Your task to perform on an android device: Add razer thresher to the cart on bestbuy, then select checkout. Image 0: 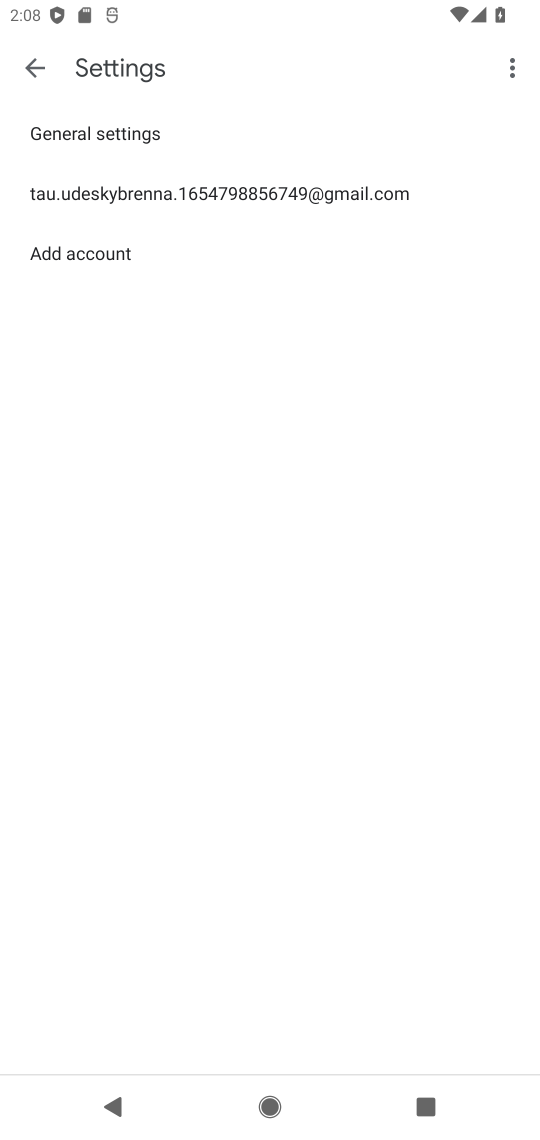
Step 0: press home button
Your task to perform on an android device: Add razer thresher to the cart on bestbuy, then select checkout. Image 1: 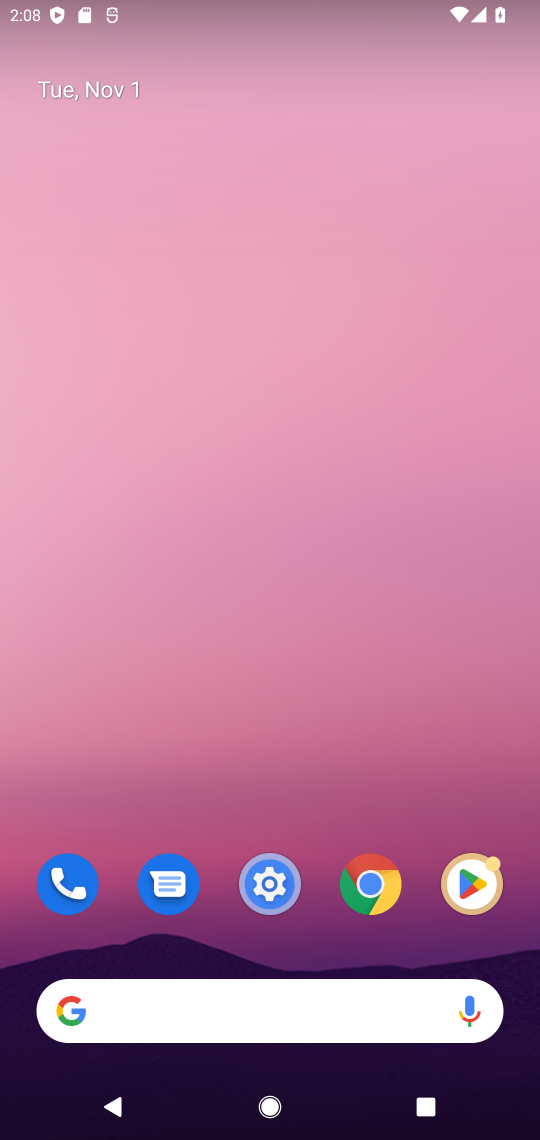
Step 1: click (100, 1001)
Your task to perform on an android device: Add razer thresher to the cart on bestbuy, then select checkout. Image 2: 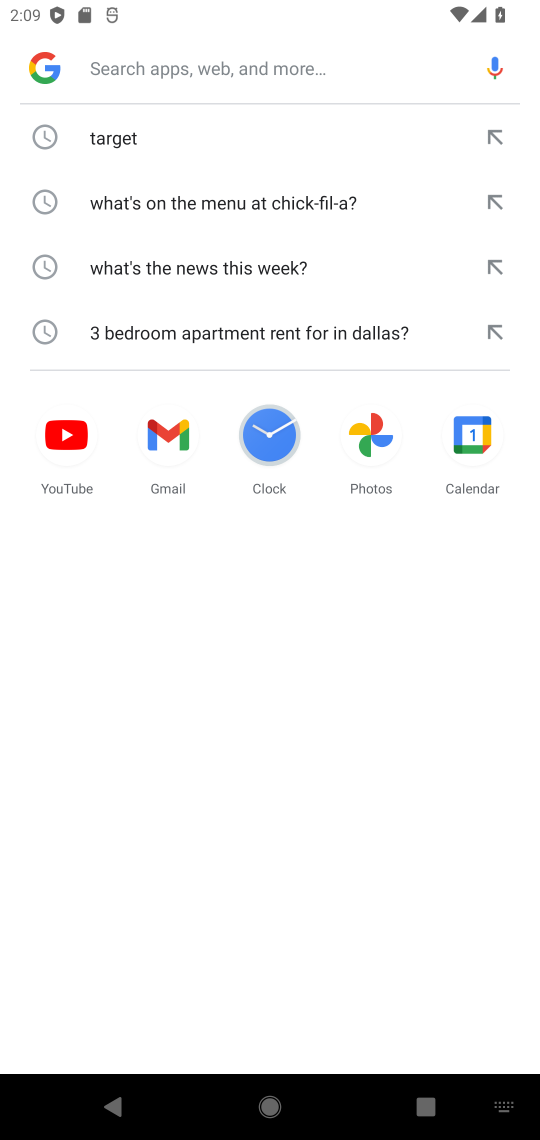
Step 2: type "bestbuy,"
Your task to perform on an android device: Add razer thresher to the cart on bestbuy, then select checkout. Image 3: 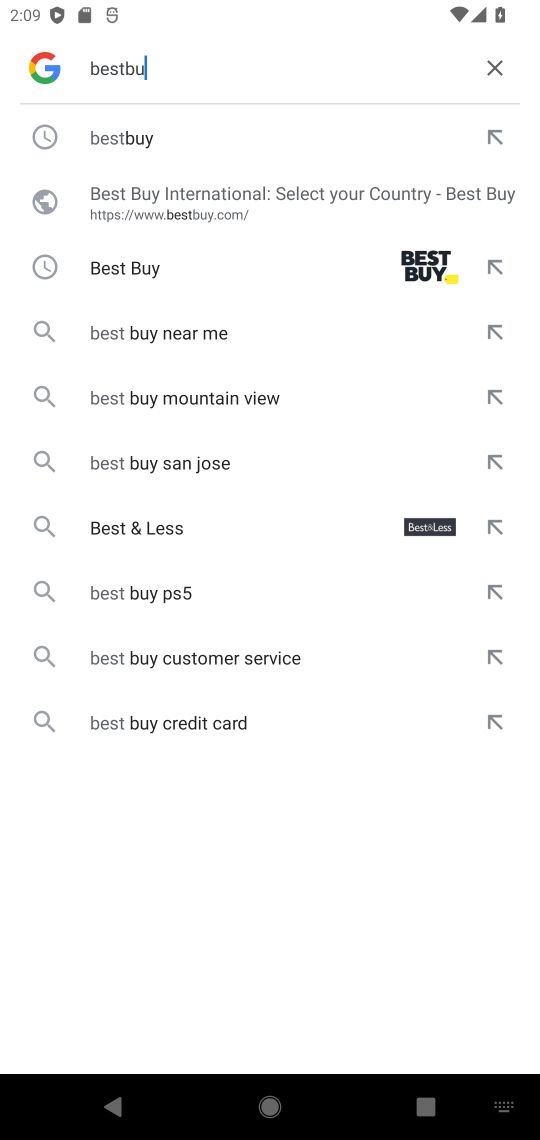
Step 3: press enter
Your task to perform on an android device: Add razer thresher to the cart on bestbuy, then select checkout. Image 4: 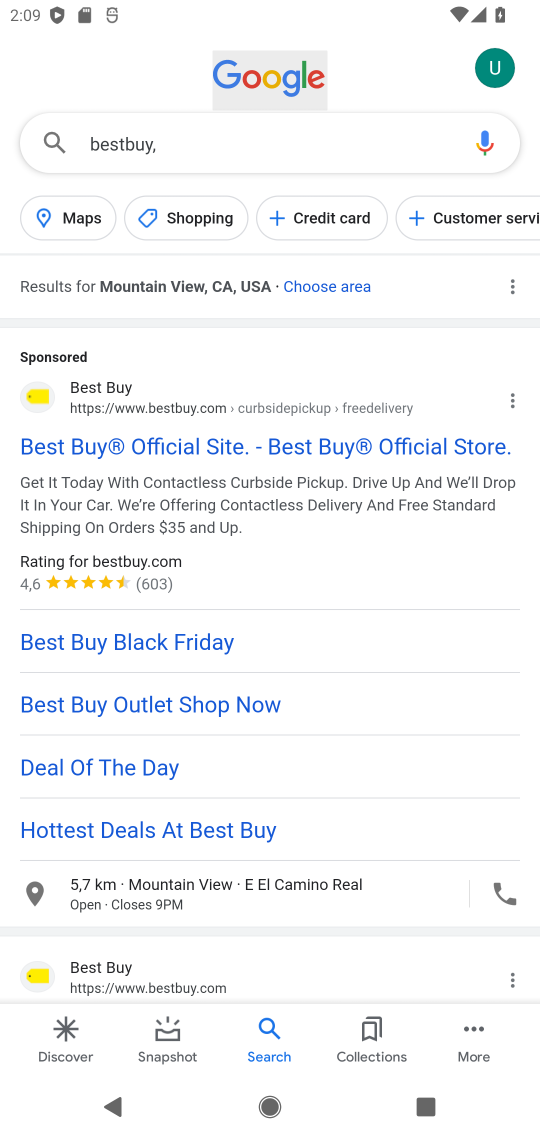
Step 4: click (209, 447)
Your task to perform on an android device: Add razer thresher to the cart on bestbuy, then select checkout. Image 5: 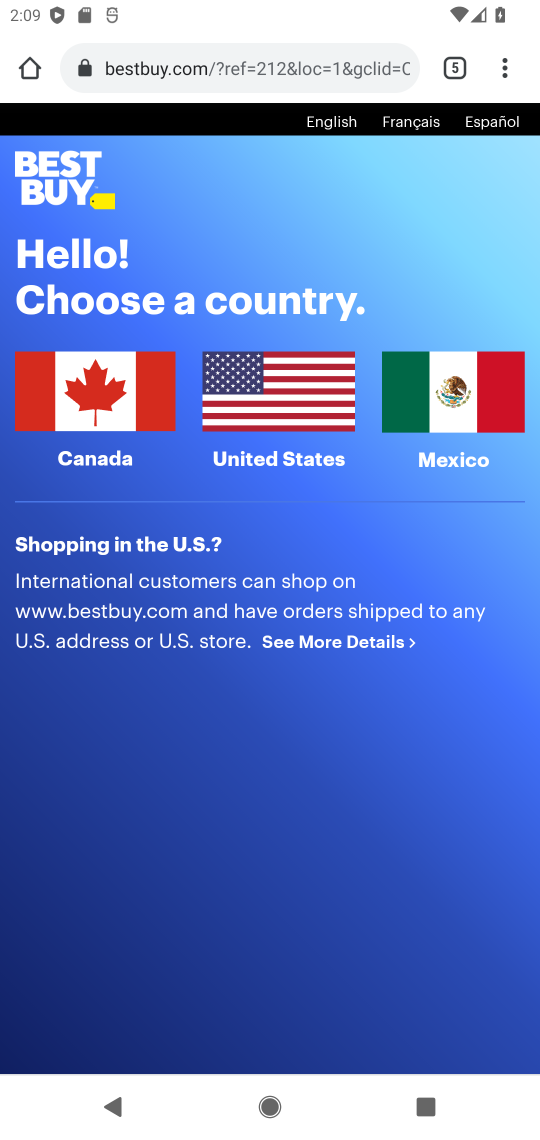
Step 5: click (68, 392)
Your task to perform on an android device: Add razer thresher to the cart on bestbuy, then select checkout. Image 6: 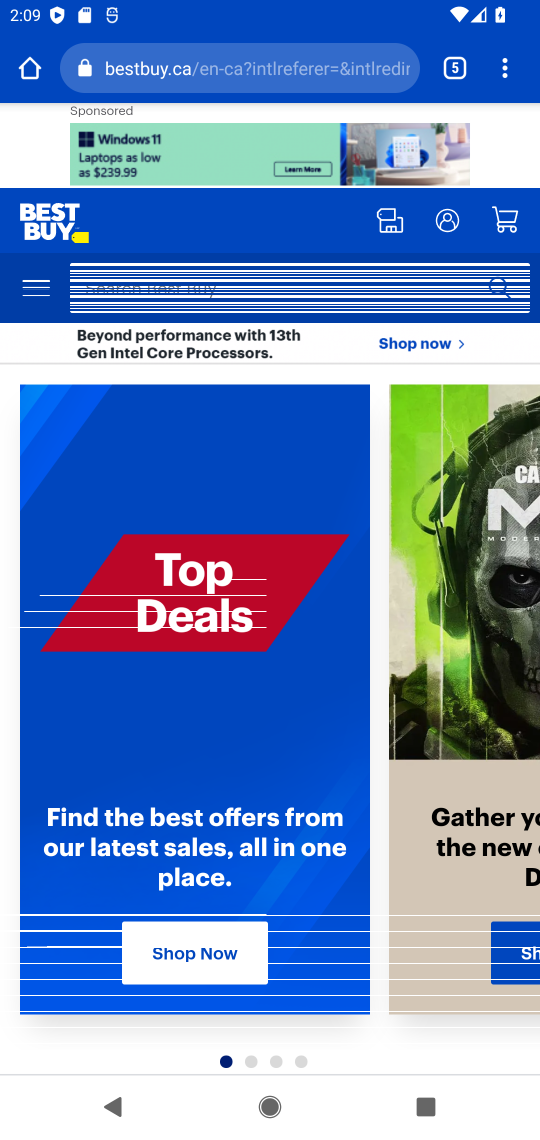
Step 6: drag from (314, 762) to (316, 223)
Your task to perform on an android device: Add razer thresher to the cart on bestbuy, then select checkout. Image 7: 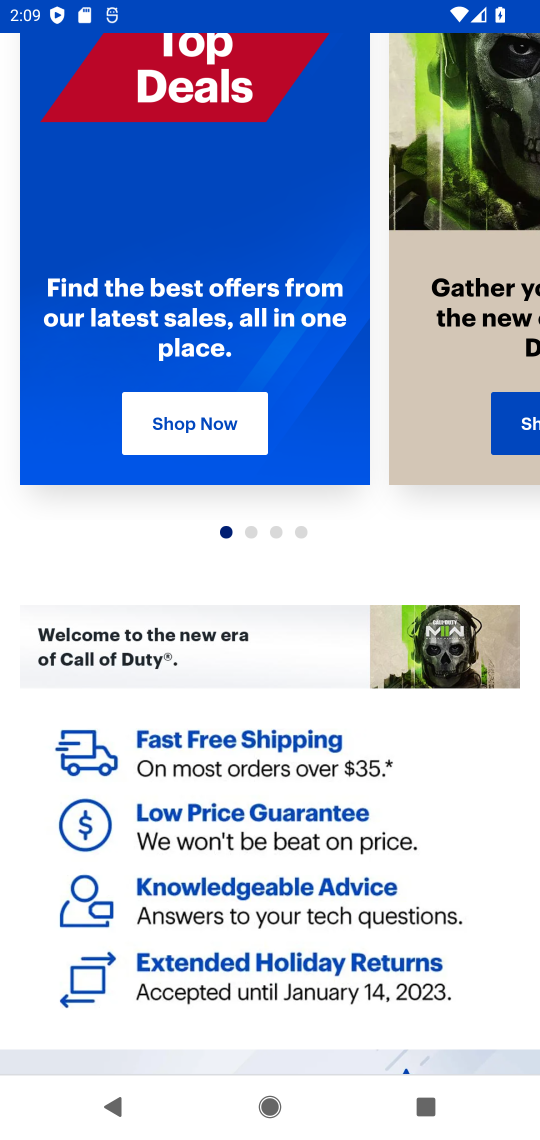
Step 7: drag from (324, 115) to (286, 622)
Your task to perform on an android device: Add razer thresher to the cart on bestbuy, then select checkout. Image 8: 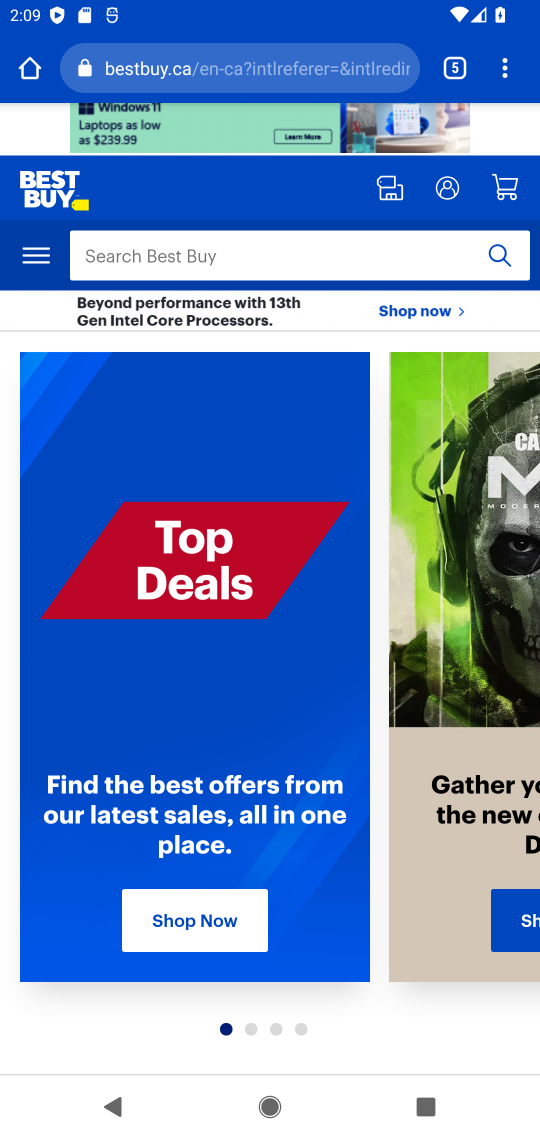
Step 8: click (128, 243)
Your task to perform on an android device: Add razer thresher to the cart on bestbuy, then select checkout. Image 9: 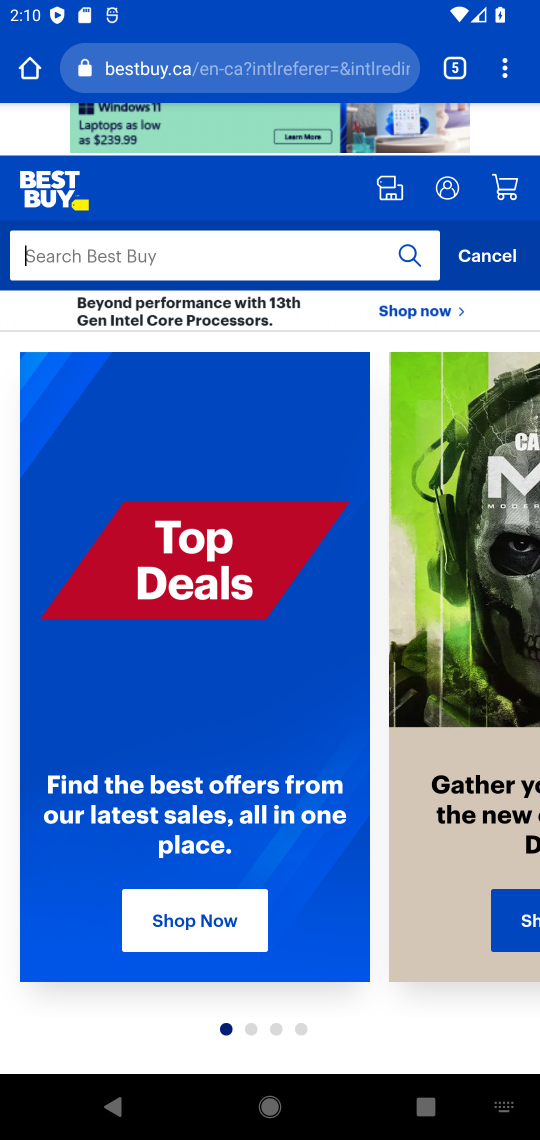
Step 9: type "razer thresher "
Your task to perform on an android device: Add razer thresher to the cart on bestbuy, then select checkout. Image 10: 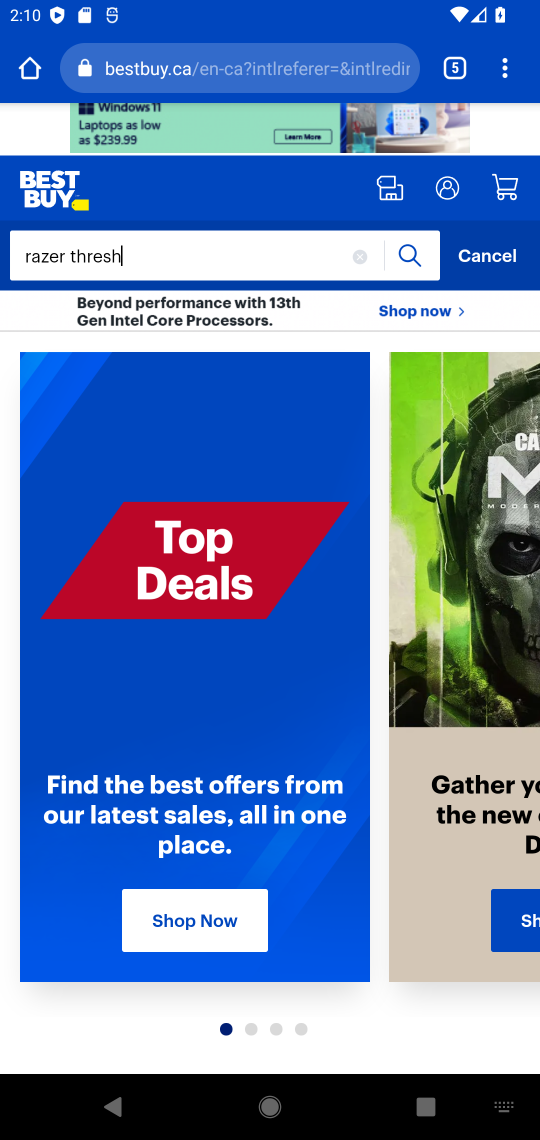
Step 10: press enter
Your task to perform on an android device: Add razer thresher to the cart on bestbuy, then select checkout. Image 11: 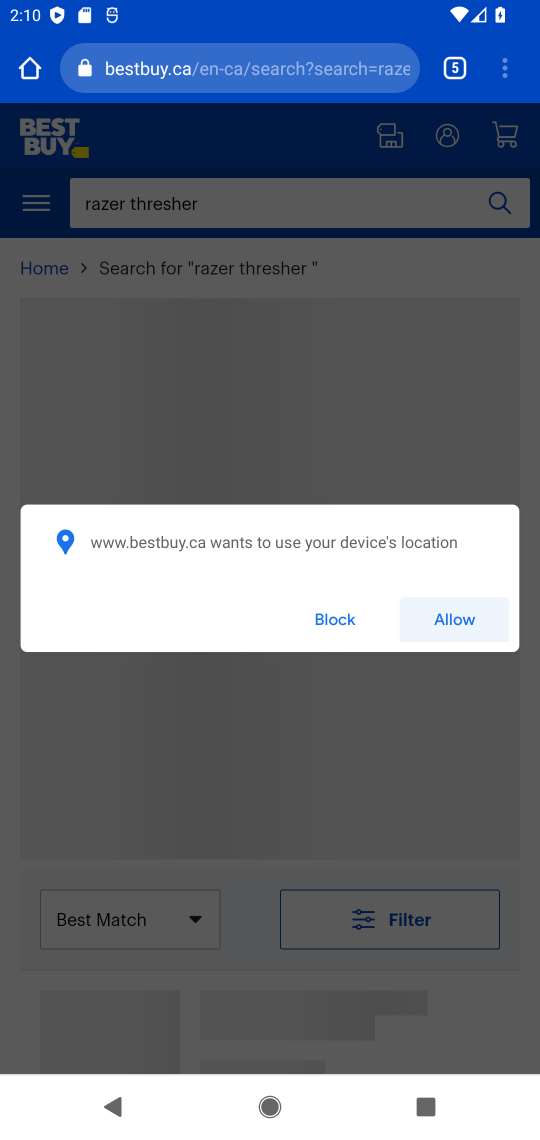
Step 11: click (329, 621)
Your task to perform on an android device: Add razer thresher to the cart on bestbuy, then select checkout. Image 12: 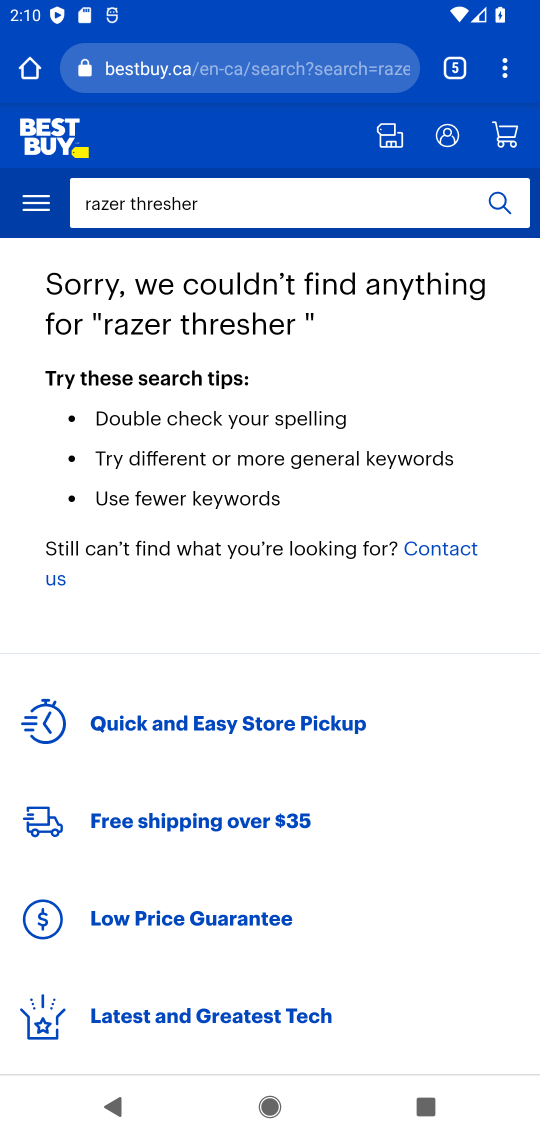
Step 12: task complete